Your task to perform on an android device: toggle show notifications on the lock screen Image 0: 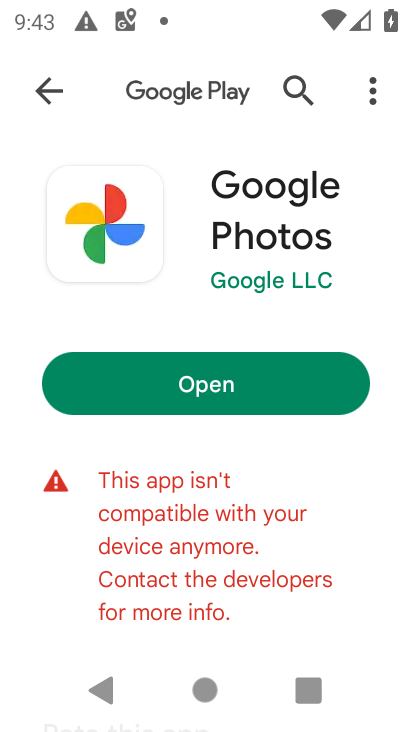
Step 0: press home button
Your task to perform on an android device: toggle show notifications on the lock screen Image 1: 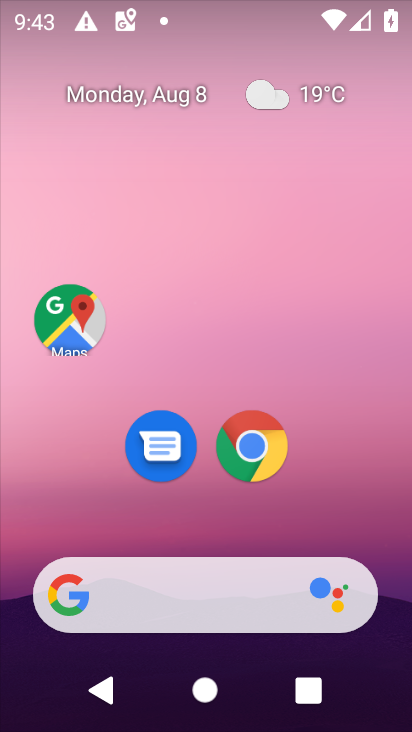
Step 1: drag from (390, 623) to (379, 221)
Your task to perform on an android device: toggle show notifications on the lock screen Image 2: 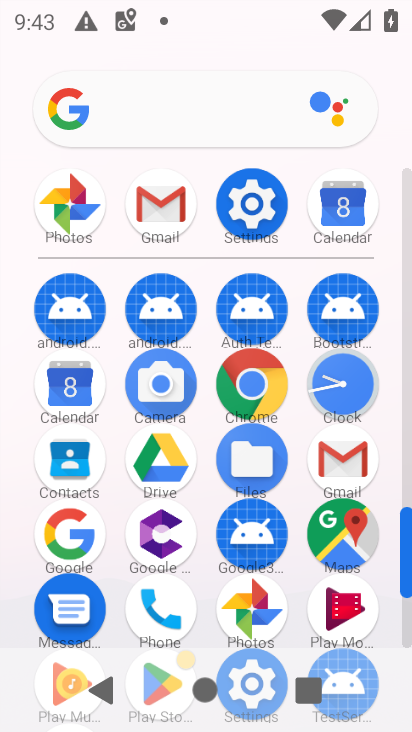
Step 2: click (404, 633)
Your task to perform on an android device: toggle show notifications on the lock screen Image 3: 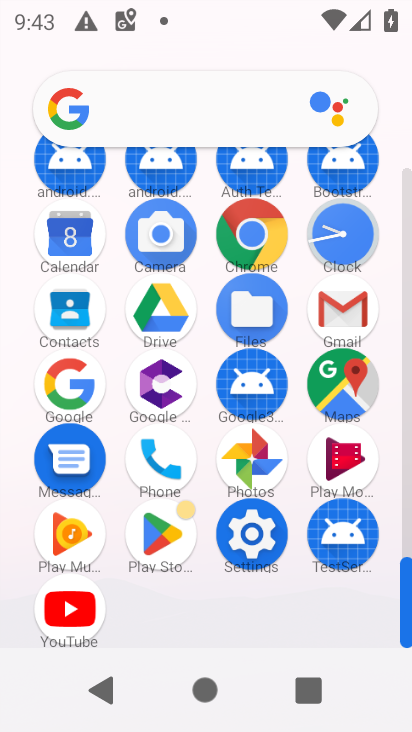
Step 3: click (251, 530)
Your task to perform on an android device: toggle show notifications on the lock screen Image 4: 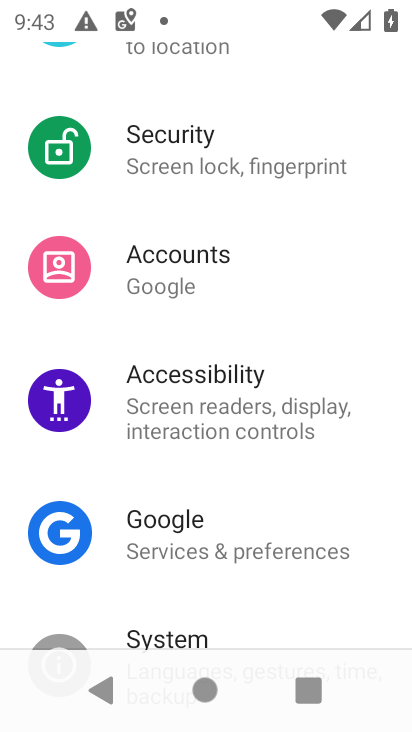
Step 4: drag from (282, 357) to (282, 572)
Your task to perform on an android device: toggle show notifications on the lock screen Image 5: 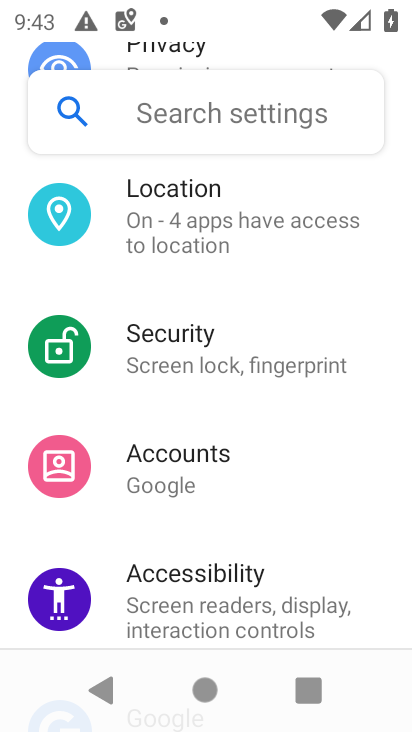
Step 5: drag from (297, 186) to (294, 402)
Your task to perform on an android device: toggle show notifications on the lock screen Image 6: 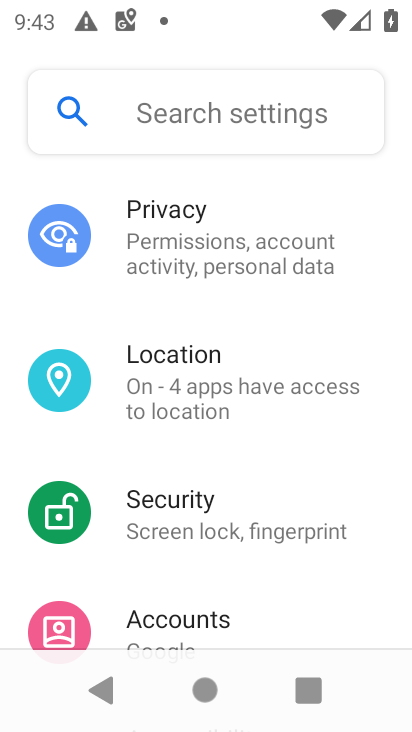
Step 6: drag from (325, 232) to (330, 430)
Your task to perform on an android device: toggle show notifications on the lock screen Image 7: 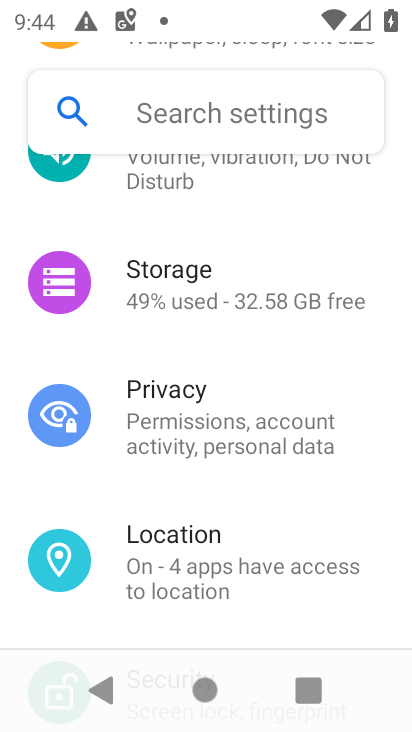
Step 7: drag from (332, 211) to (352, 485)
Your task to perform on an android device: toggle show notifications on the lock screen Image 8: 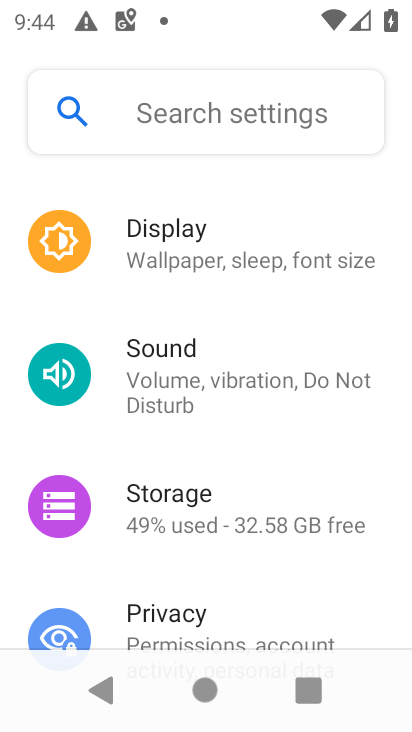
Step 8: drag from (336, 244) to (345, 561)
Your task to perform on an android device: toggle show notifications on the lock screen Image 9: 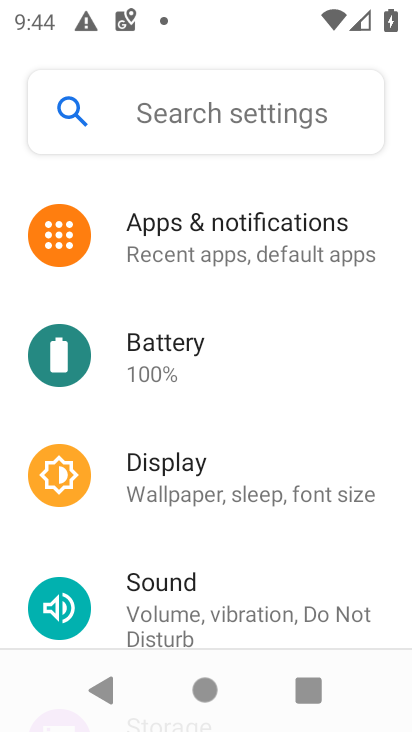
Step 9: click (207, 231)
Your task to perform on an android device: toggle show notifications on the lock screen Image 10: 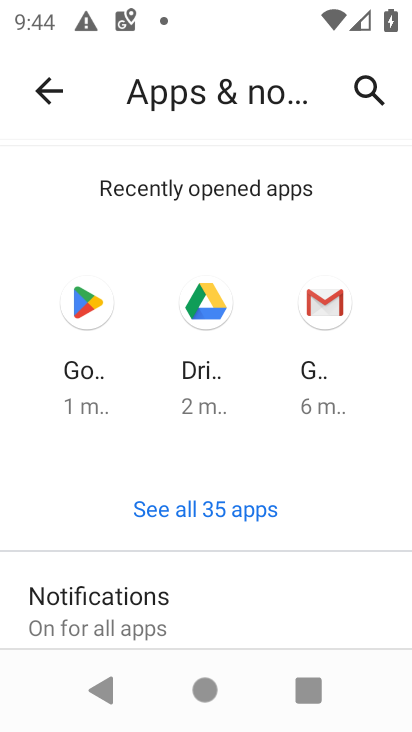
Step 10: drag from (305, 585) to (298, 191)
Your task to perform on an android device: toggle show notifications on the lock screen Image 11: 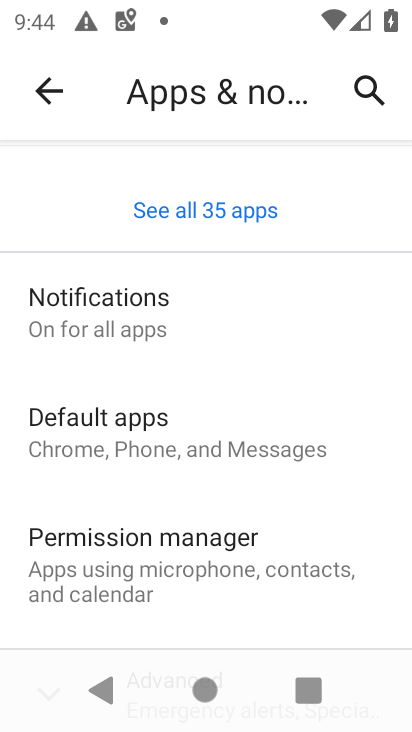
Step 11: click (99, 308)
Your task to perform on an android device: toggle show notifications on the lock screen Image 12: 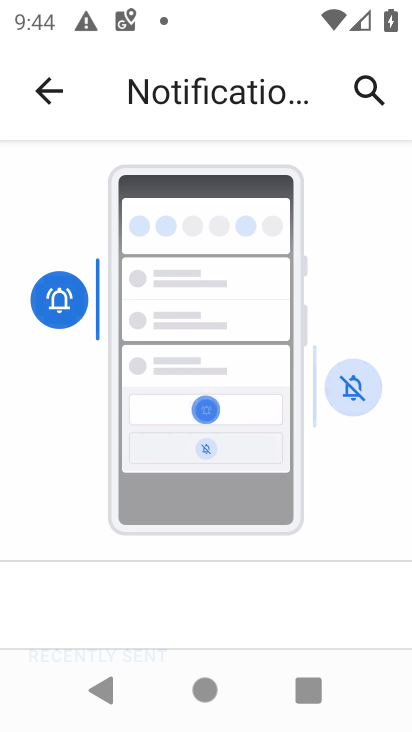
Step 12: drag from (302, 626) to (283, 256)
Your task to perform on an android device: toggle show notifications on the lock screen Image 13: 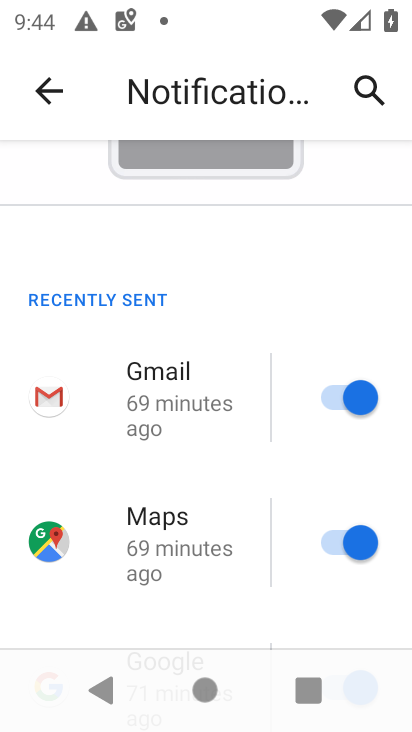
Step 13: drag from (267, 630) to (268, 128)
Your task to perform on an android device: toggle show notifications on the lock screen Image 14: 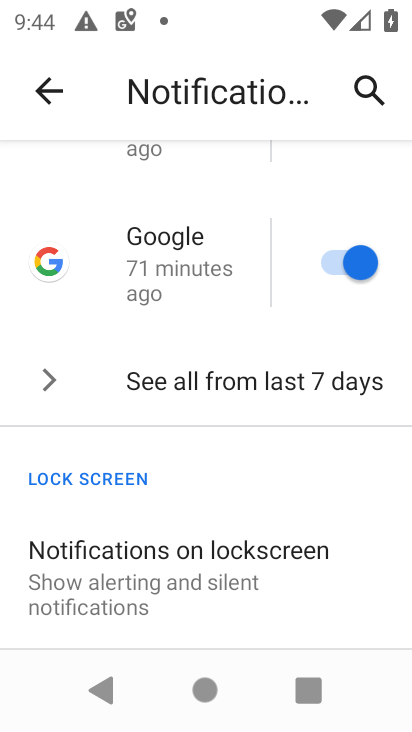
Step 14: drag from (244, 517) to (274, 266)
Your task to perform on an android device: toggle show notifications on the lock screen Image 15: 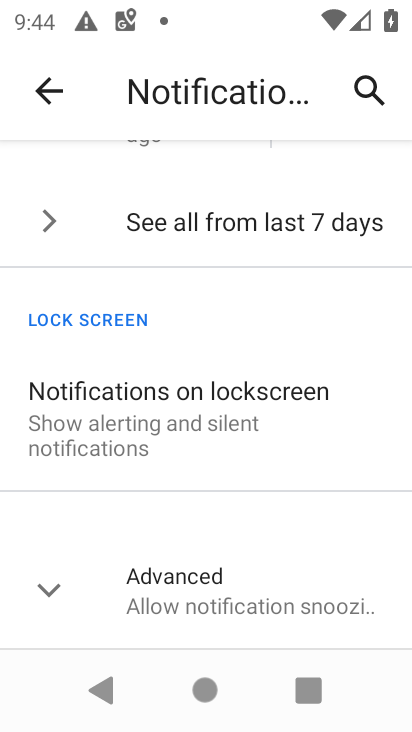
Step 15: click (173, 408)
Your task to perform on an android device: toggle show notifications on the lock screen Image 16: 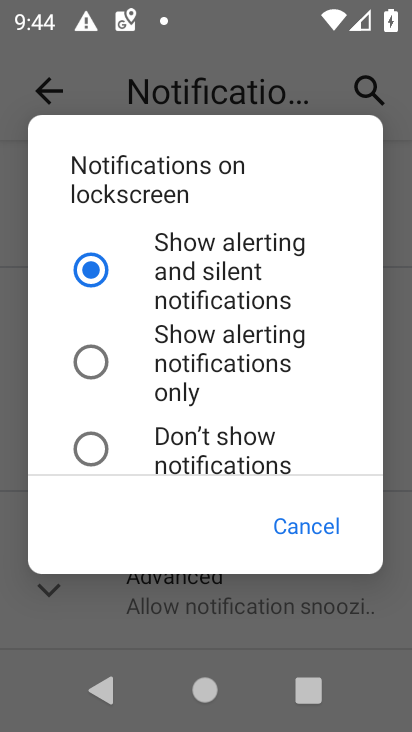
Step 16: click (83, 361)
Your task to perform on an android device: toggle show notifications on the lock screen Image 17: 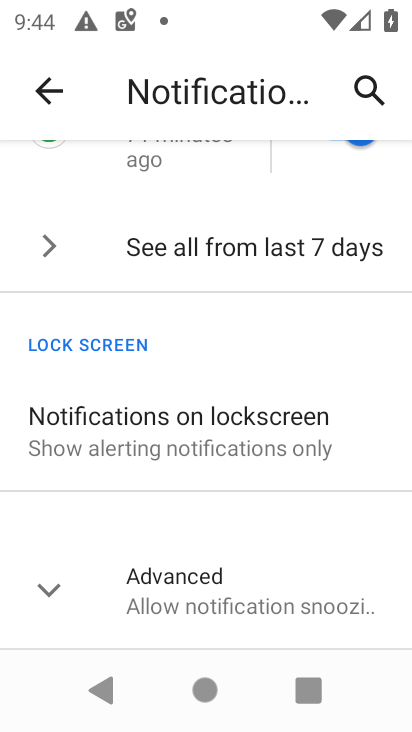
Step 17: task complete